Your task to perform on an android device: Open display settings Image 0: 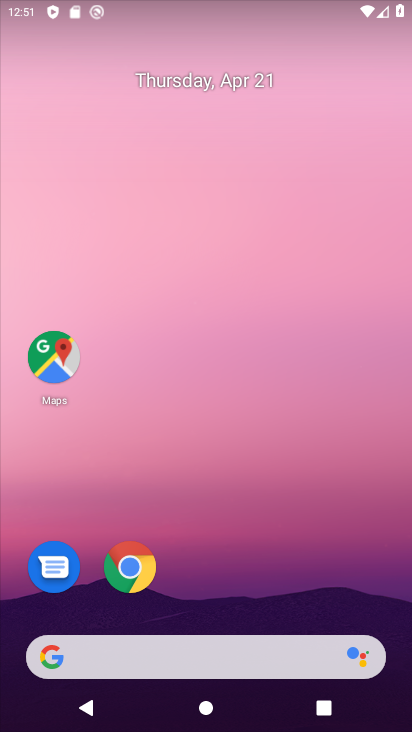
Step 0: drag from (223, 383) to (256, 79)
Your task to perform on an android device: Open display settings Image 1: 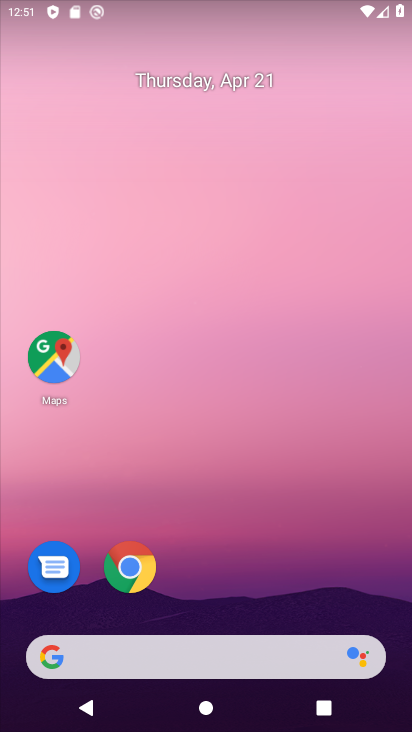
Step 1: drag from (230, 485) to (272, 118)
Your task to perform on an android device: Open display settings Image 2: 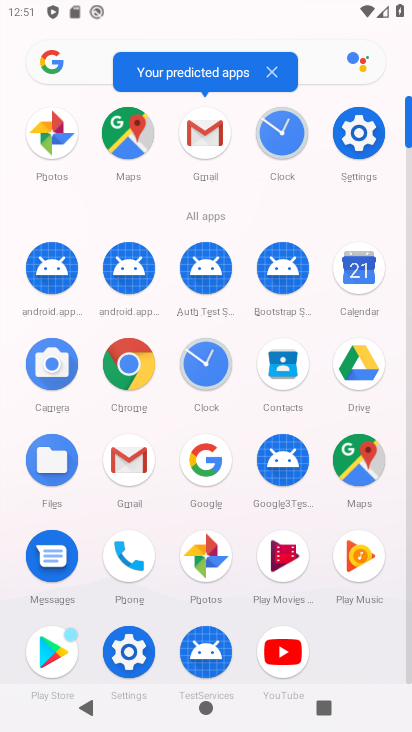
Step 2: click (351, 130)
Your task to perform on an android device: Open display settings Image 3: 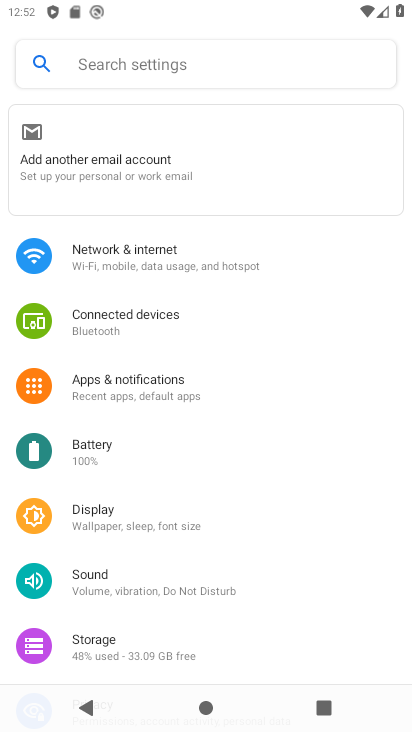
Step 3: click (121, 520)
Your task to perform on an android device: Open display settings Image 4: 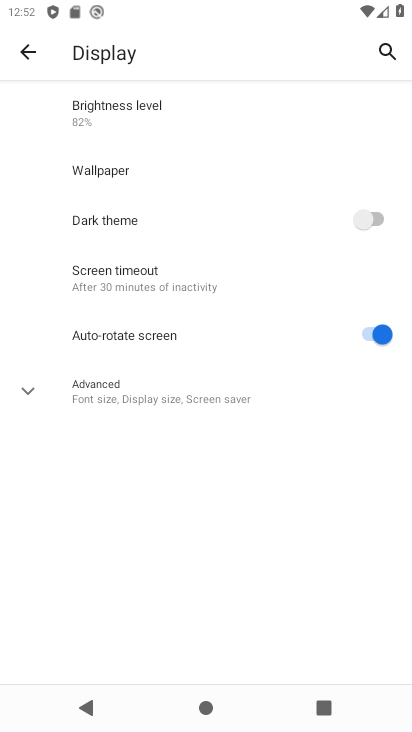
Step 4: task complete